Your task to perform on an android device: Go to battery settings Image 0: 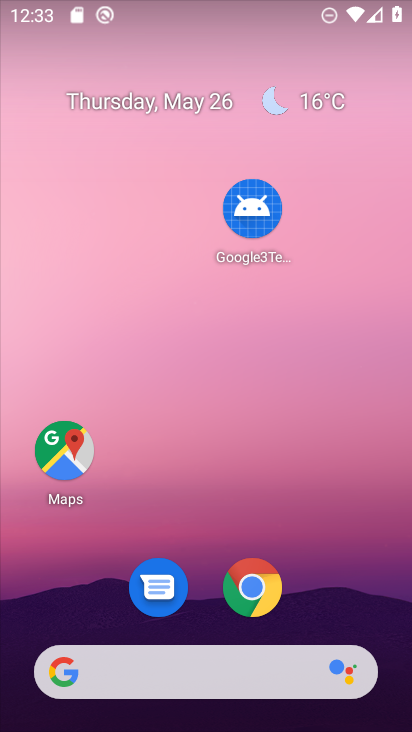
Step 0: press home button
Your task to perform on an android device: Go to battery settings Image 1: 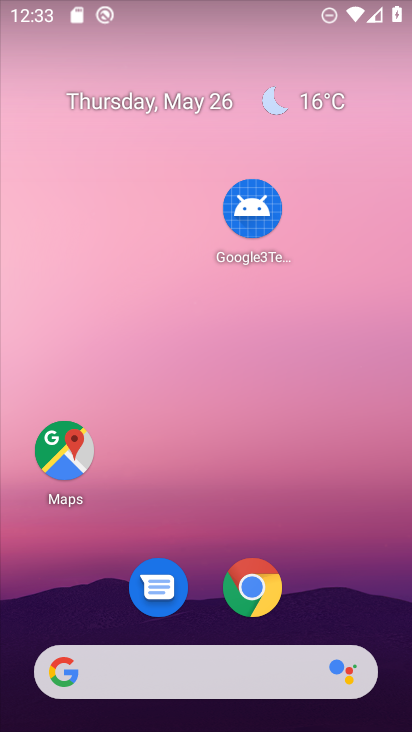
Step 1: drag from (200, 662) to (116, 148)
Your task to perform on an android device: Go to battery settings Image 2: 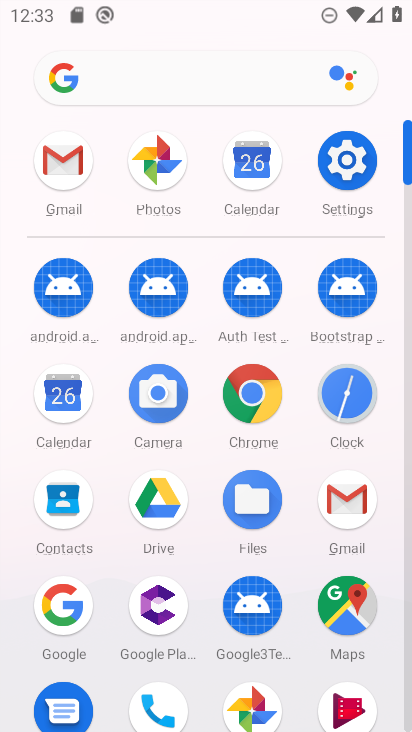
Step 2: click (342, 168)
Your task to perform on an android device: Go to battery settings Image 3: 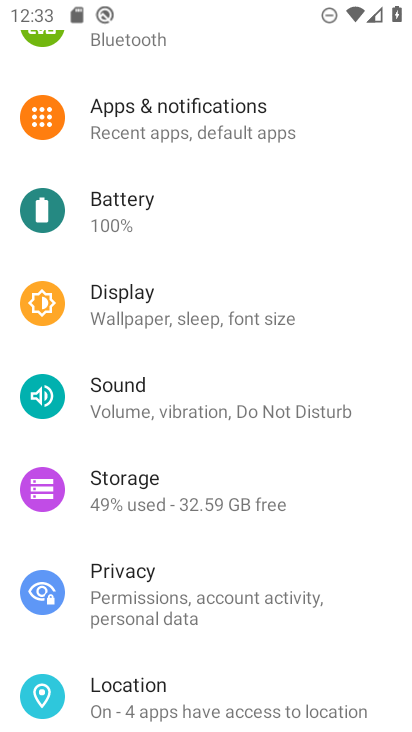
Step 3: click (185, 204)
Your task to perform on an android device: Go to battery settings Image 4: 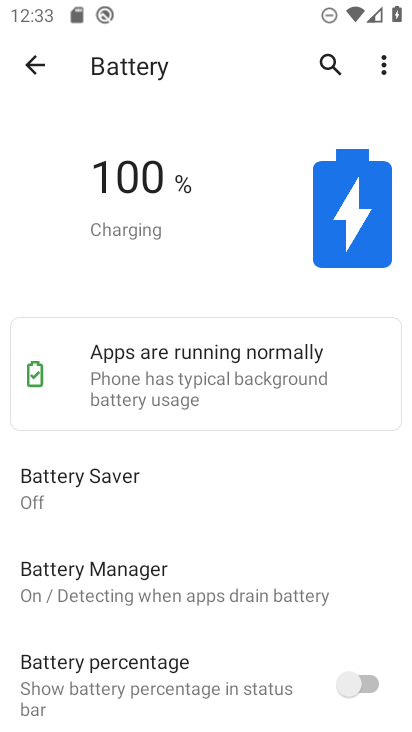
Step 4: task complete